Your task to perform on an android device: Search for Italian restaurants on Maps Image 0: 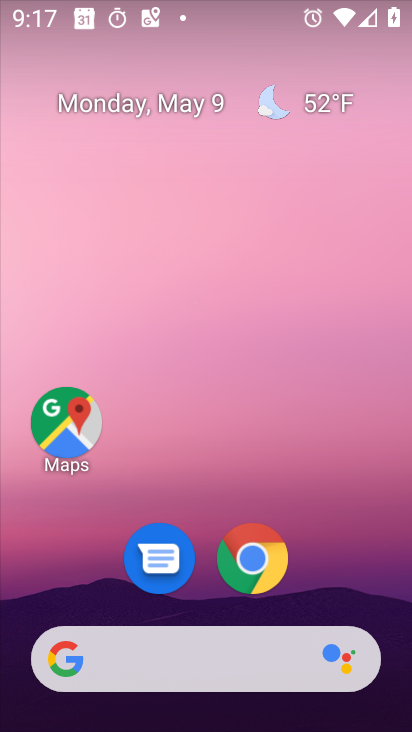
Step 0: drag from (183, 605) to (288, 93)
Your task to perform on an android device: Search for Italian restaurants on Maps Image 1: 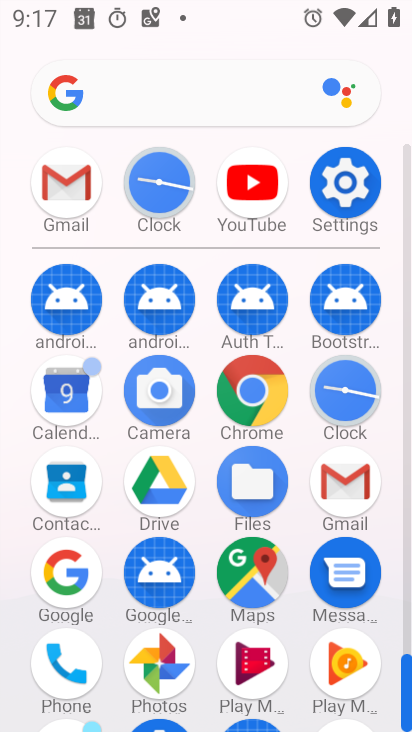
Step 1: click (260, 582)
Your task to perform on an android device: Search for Italian restaurants on Maps Image 2: 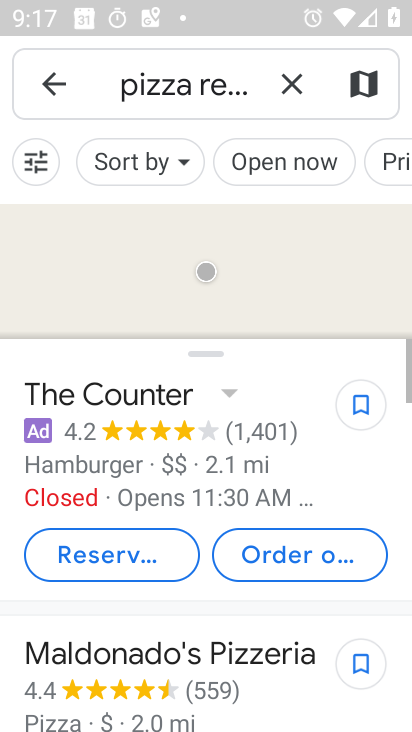
Step 2: click (299, 84)
Your task to perform on an android device: Search for Italian restaurants on Maps Image 3: 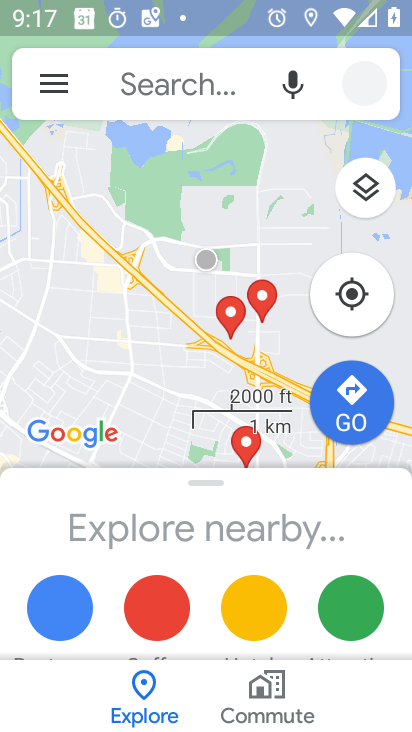
Step 3: click (122, 84)
Your task to perform on an android device: Search for Italian restaurants on Maps Image 4: 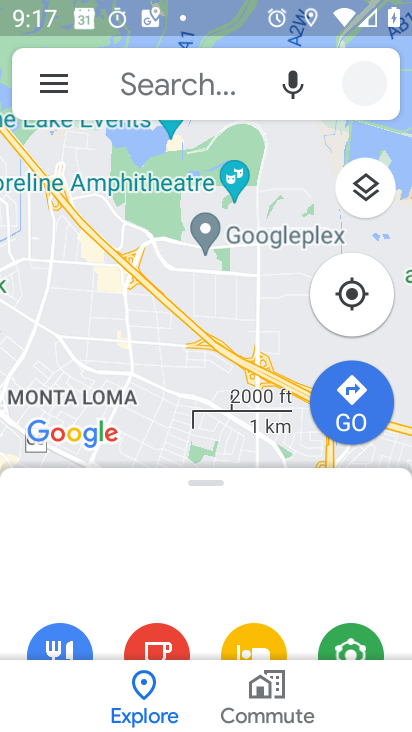
Step 4: click (166, 90)
Your task to perform on an android device: Search for Italian restaurants on Maps Image 5: 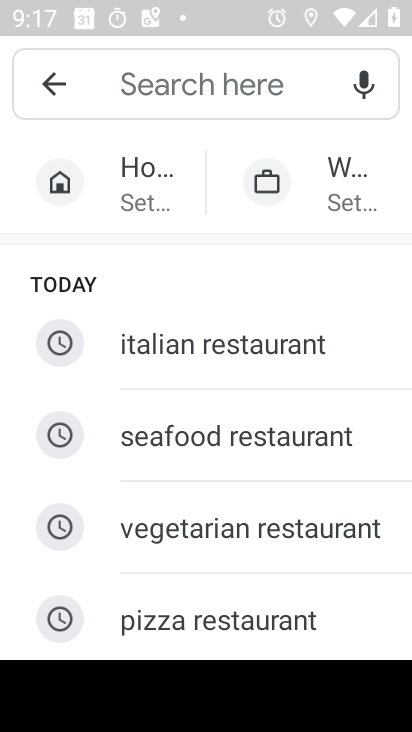
Step 5: type "ita"
Your task to perform on an android device: Search for Italian restaurants on Maps Image 6: 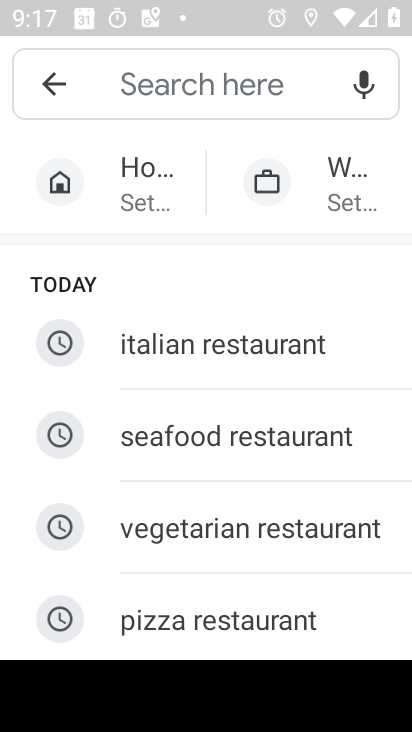
Step 6: click (290, 345)
Your task to perform on an android device: Search for Italian restaurants on Maps Image 7: 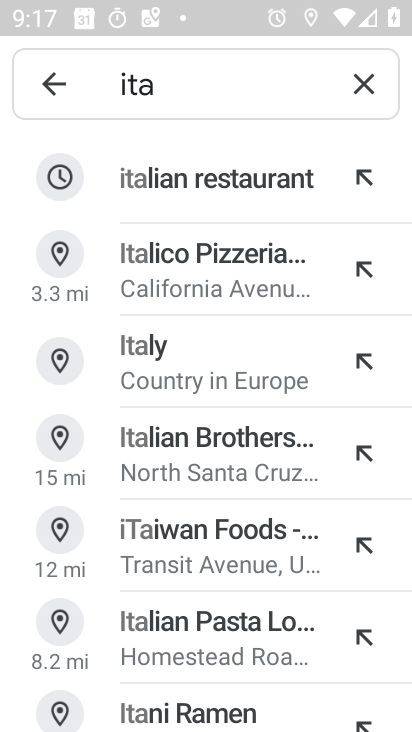
Step 7: click (199, 180)
Your task to perform on an android device: Search for Italian restaurants on Maps Image 8: 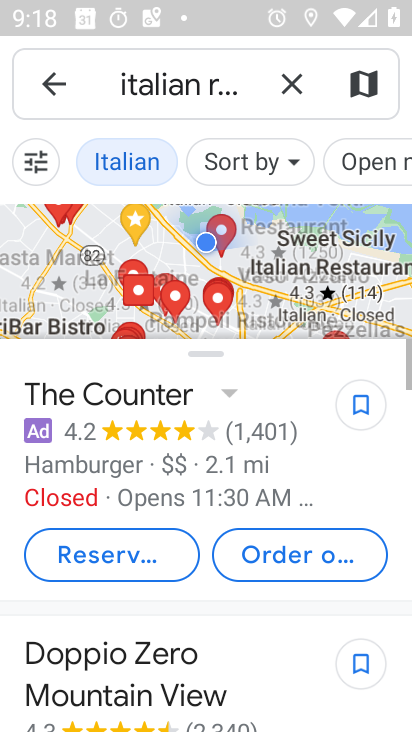
Step 8: task complete